Your task to perform on an android device: Turn off the flashlight Image 0: 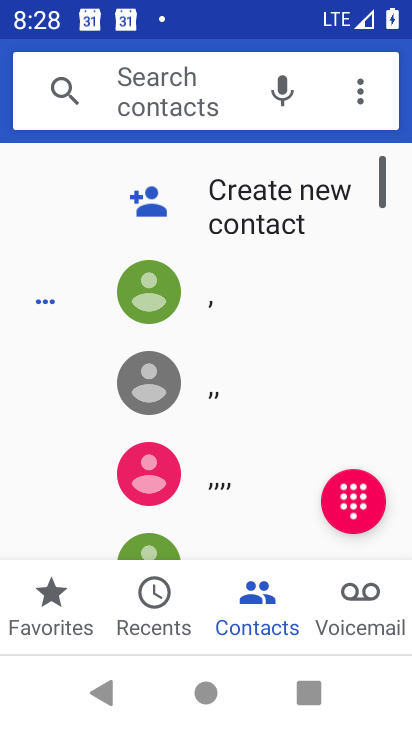
Step 0: press home button
Your task to perform on an android device: Turn off the flashlight Image 1: 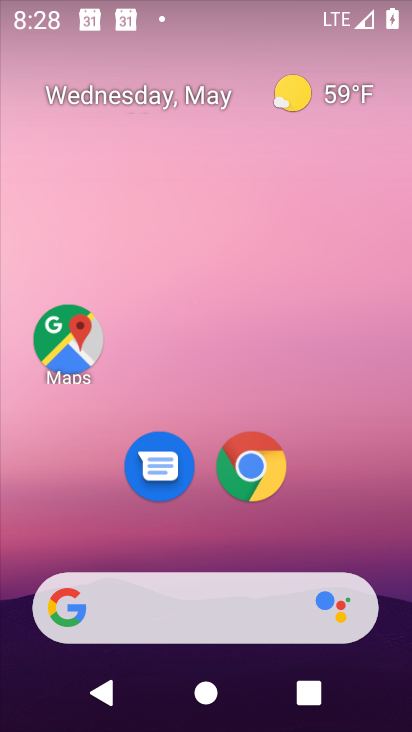
Step 1: drag from (298, 542) to (306, 225)
Your task to perform on an android device: Turn off the flashlight Image 2: 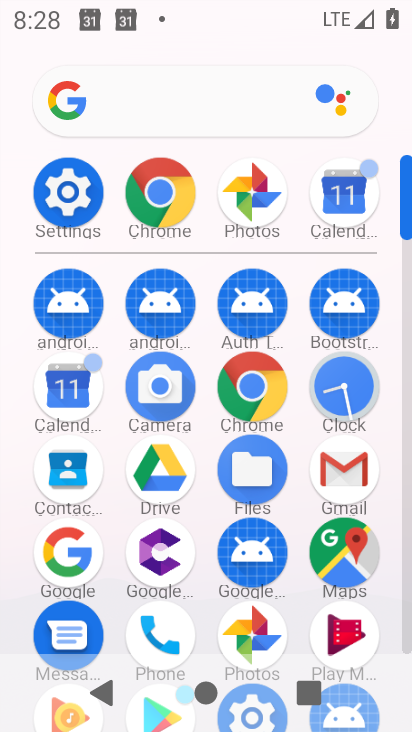
Step 2: click (45, 198)
Your task to perform on an android device: Turn off the flashlight Image 3: 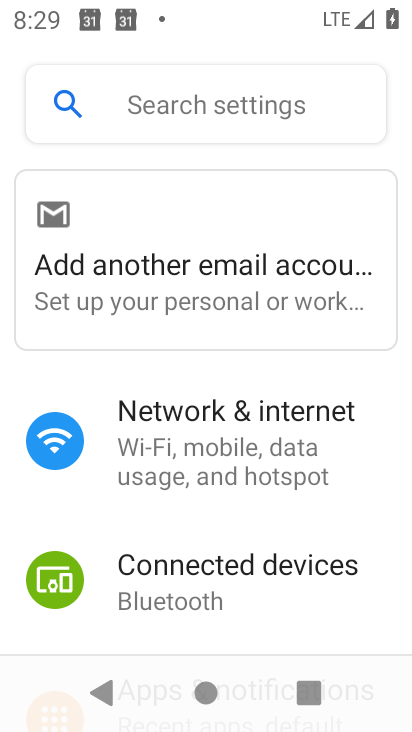
Step 3: task complete